Your task to perform on an android device: Search for 3d printed chess sets on Etsy. Image 0: 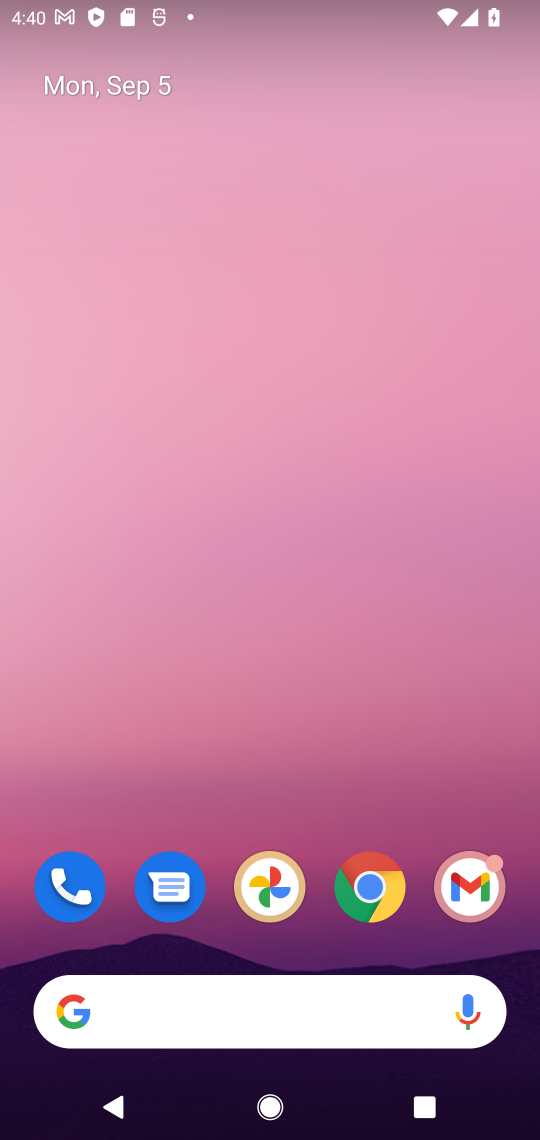
Step 0: drag from (325, 798) to (358, 4)
Your task to perform on an android device: Search for 3d printed chess sets on Etsy. Image 1: 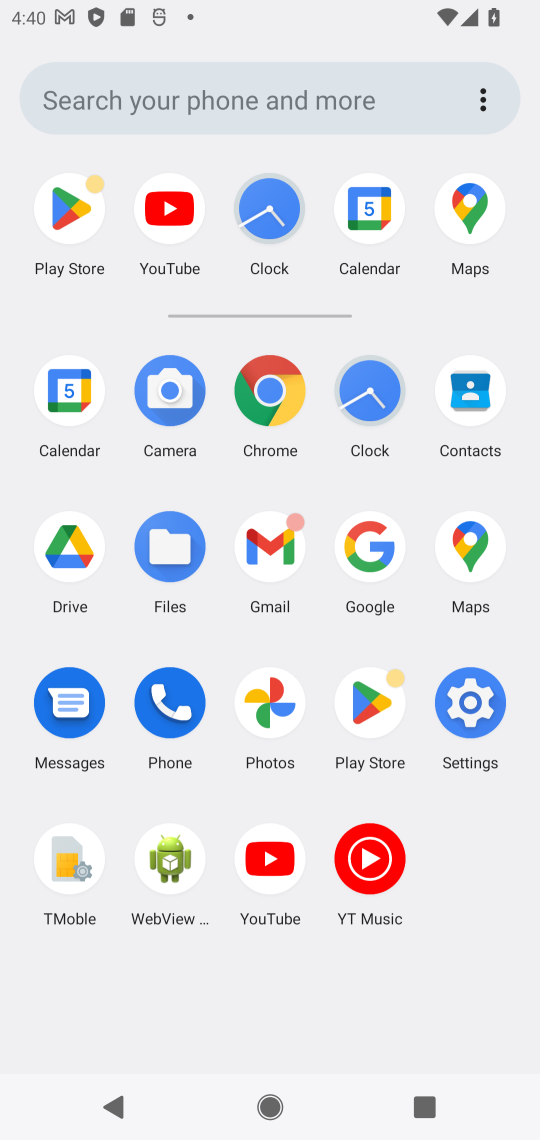
Step 1: click (264, 391)
Your task to perform on an android device: Search for 3d printed chess sets on Etsy. Image 2: 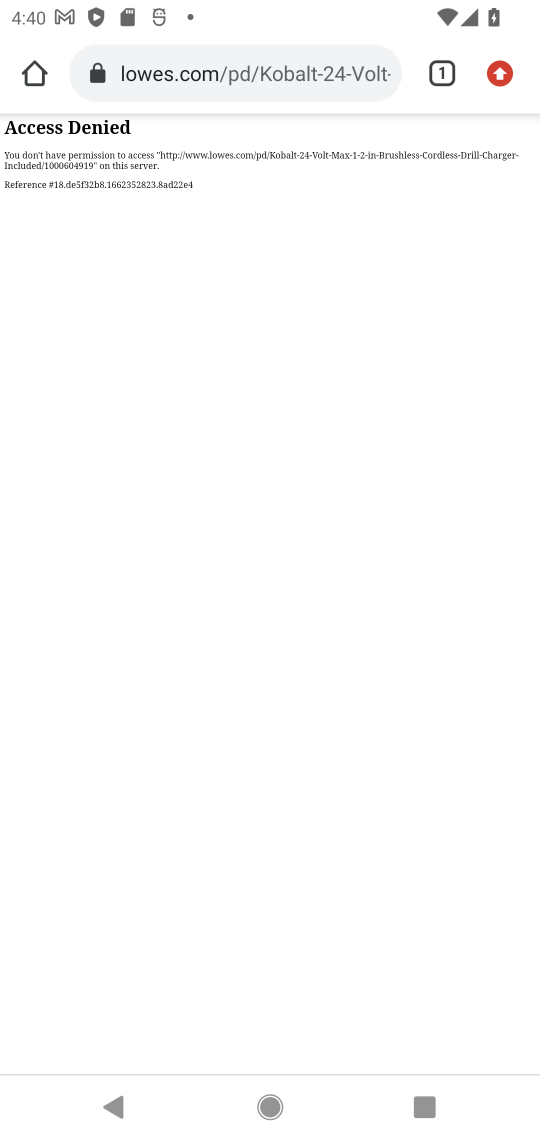
Step 2: click (261, 79)
Your task to perform on an android device: Search for 3d printed chess sets on Etsy. Image 3: 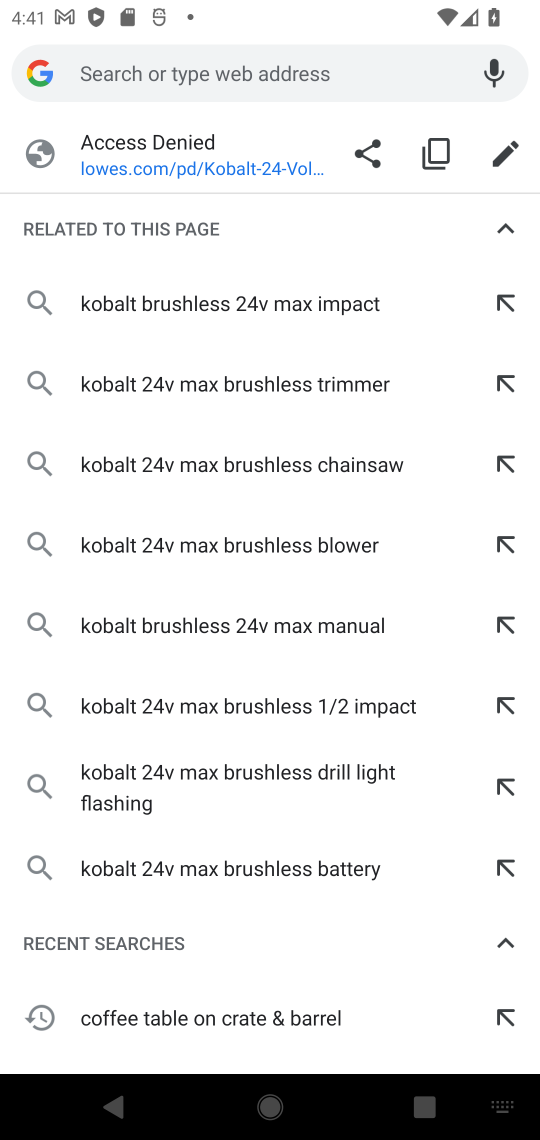
Step 3: type "3d printed chess sets on Etsy"
Your task to perform on an android device: Search for 3d printed chess sets on Etsy. Image 4: 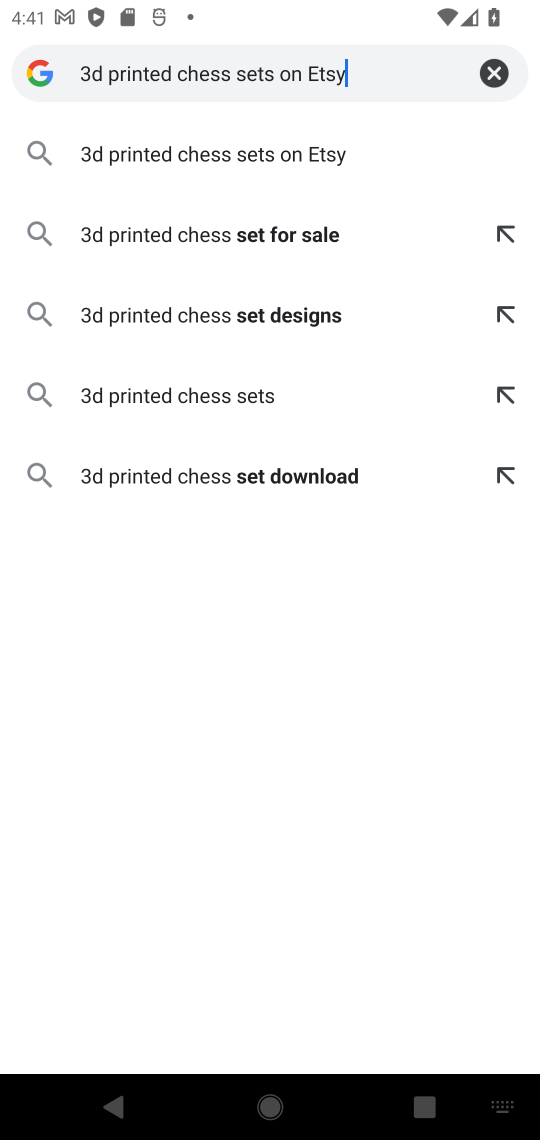
Step 4: press enter
Your task to perform on an android device: Search for 3d printed chess sets on Etsy. Image 5: 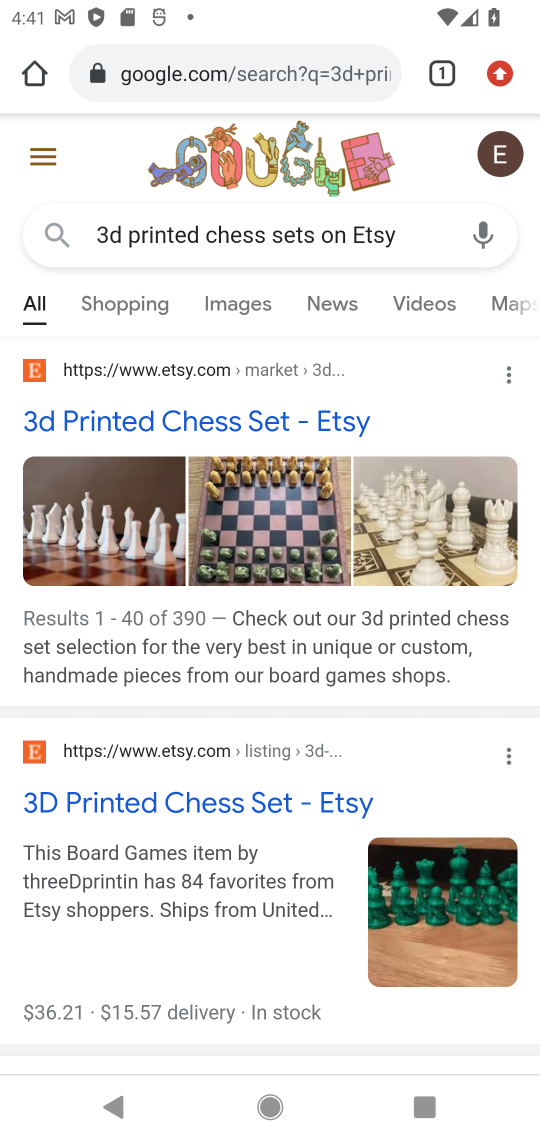
Step 5: click (155, 428)
Your task to perform on an android device: Search for 3d printed chess sets on Etsy. Image 6: 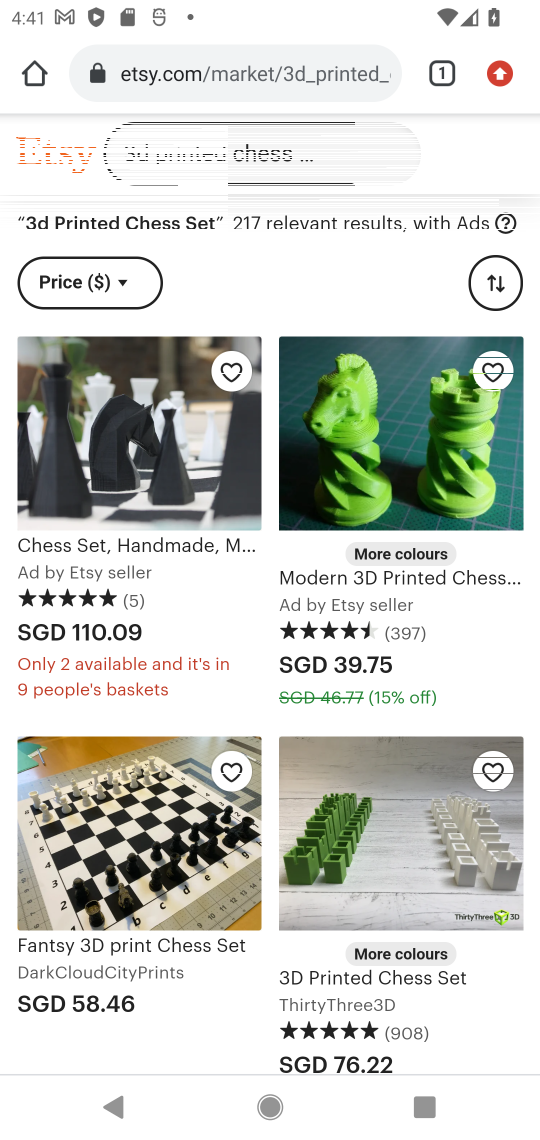
Step 6: task complete